Your task to perform on an android device: turn off sleep mode Image 0: 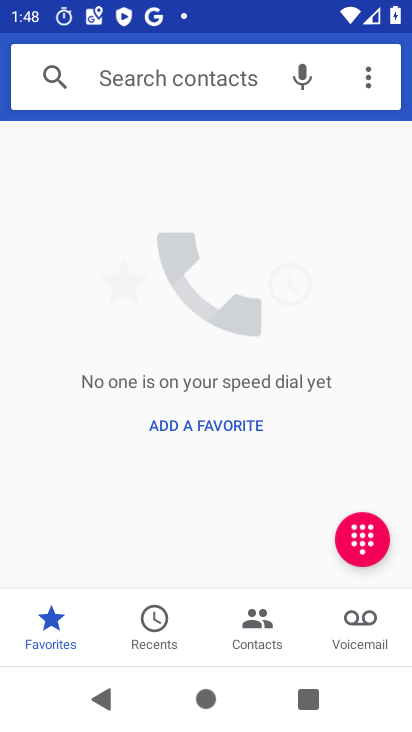
Step 0: press home button
Your task to perform on an android device: turn off sleep mode Image 1: 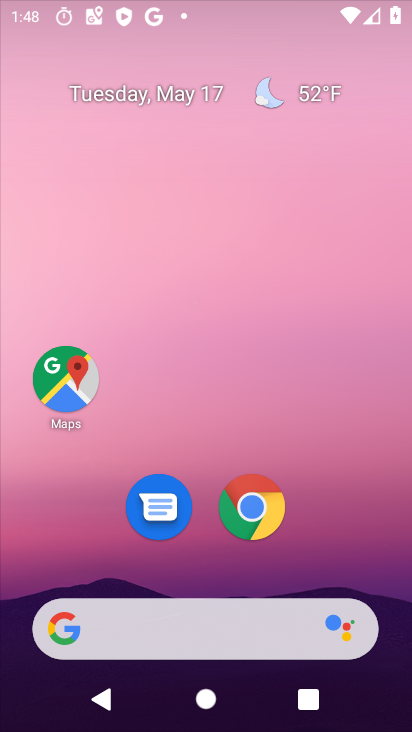
Step 1: drag from (219, 562) to (173, 81)
Your task to perform on an android device: turn off sleep mode Image 2: 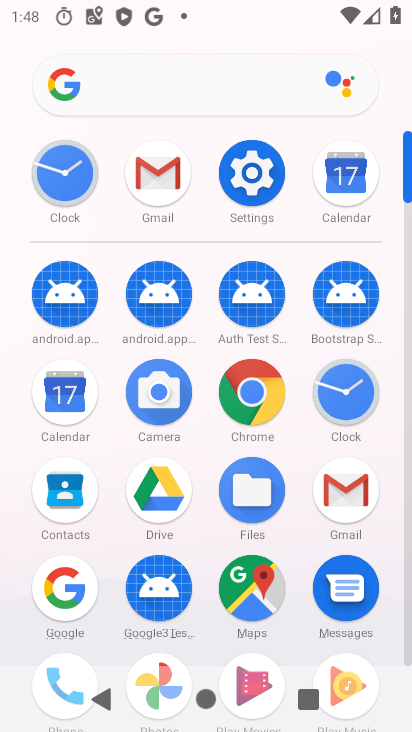
Step 2: click (248, 173)
Your task to perform on an android device: turn off sleep mode Image 3: 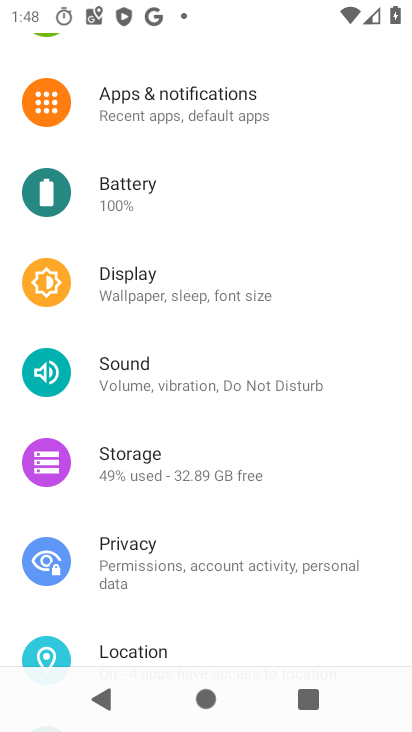
Step 3: click (167, 284)
Your task to perform on an android device: turn off sleep mode Image 4: 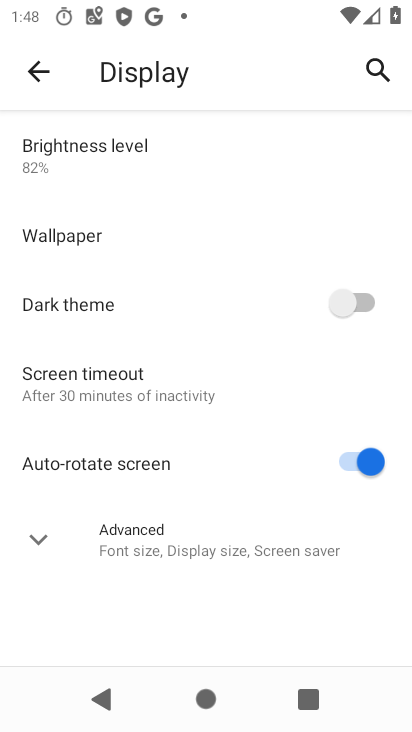
Step 4: click (136, 389)
Your task to perform on an android device: turn off sleep mode Image 5: 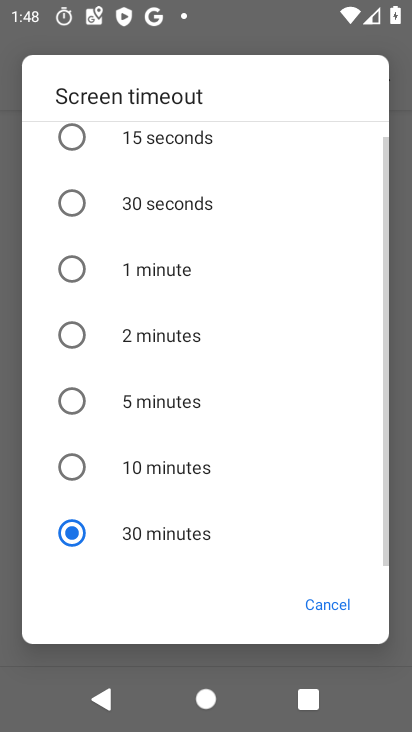
Step 5: task complete